Your task to perform on an android device: Open Chrome and go to the settings page Image 0: 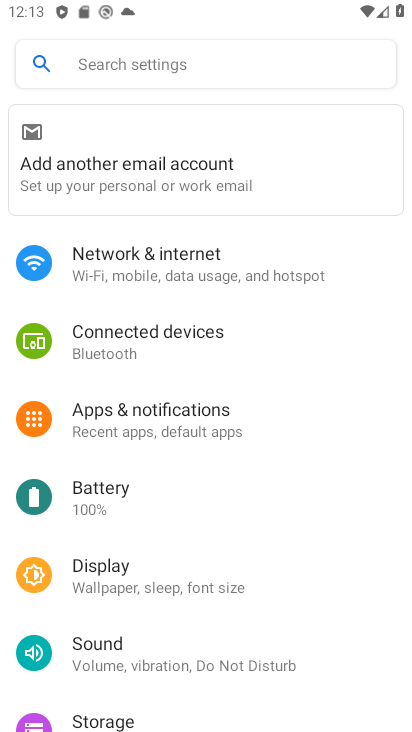
Step 0: press back button
Your task to perform on an android device: Open Chrome and go to the settings page Image 1: 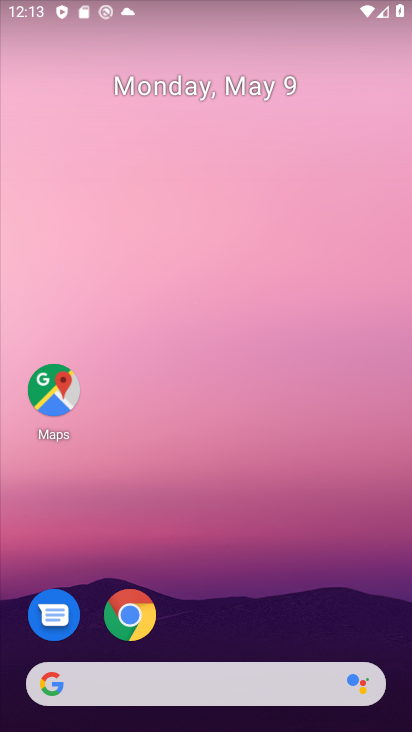
Step 1: click (128, 618)
Your task to perform on an android device: Open Chrome and go to the settings page Image 2: 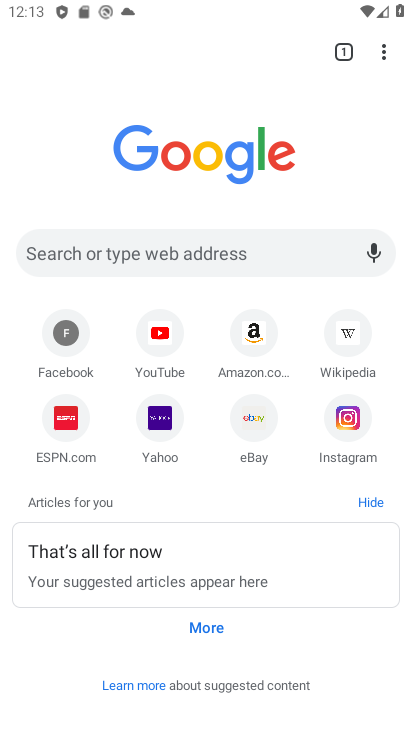
Step 2: click (383, 50)
Your task to perform on an android device: Open Chrome and go to the settings page Image 3: 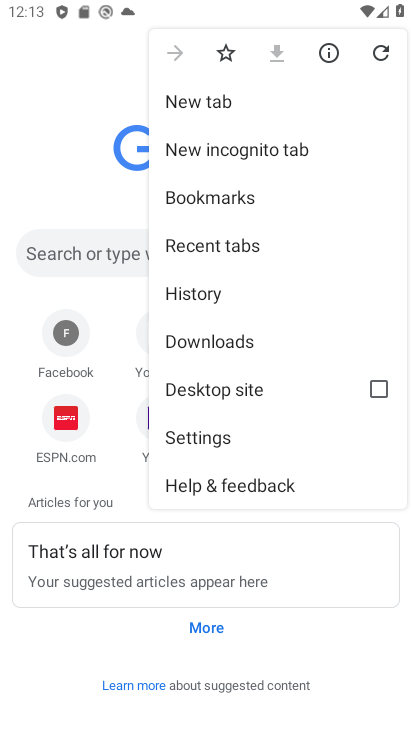
Step 3: click (203, 438)
Your task to perform on an android device: Open Chrome and go to the settings page Image 4: 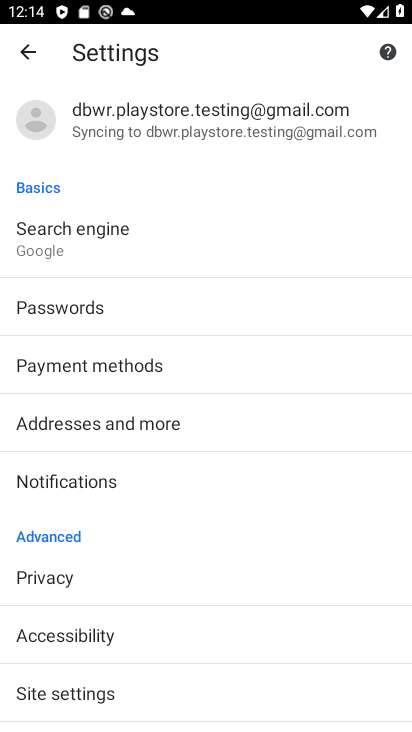
Step 4: task complete